Your task to perform on an android device: set default search engine in the chrome app Image 0: 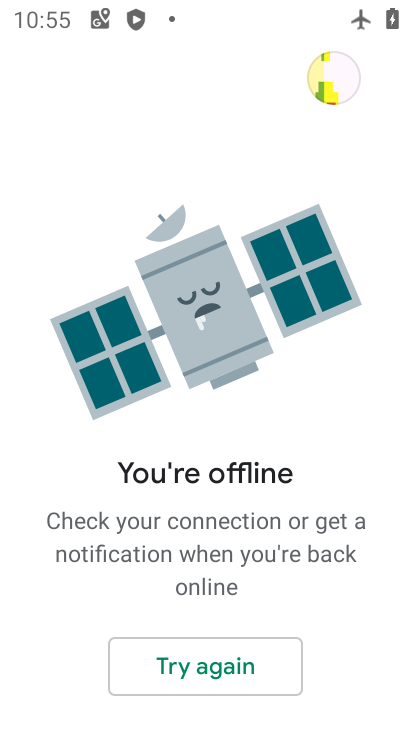
Step 0: press home button
Your task to perform on an android device: set default search engine in the chrome app Image 1: 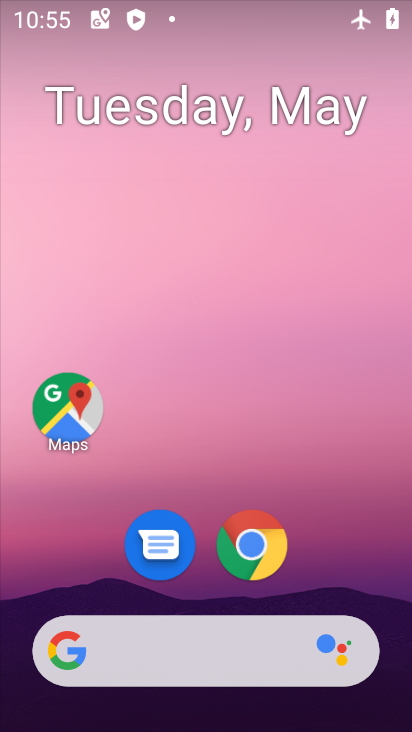
Step 1: drag from (258, 626) to (365, 121)
Your task to perform on an android device: set default search engine in the chrome app Image 2: 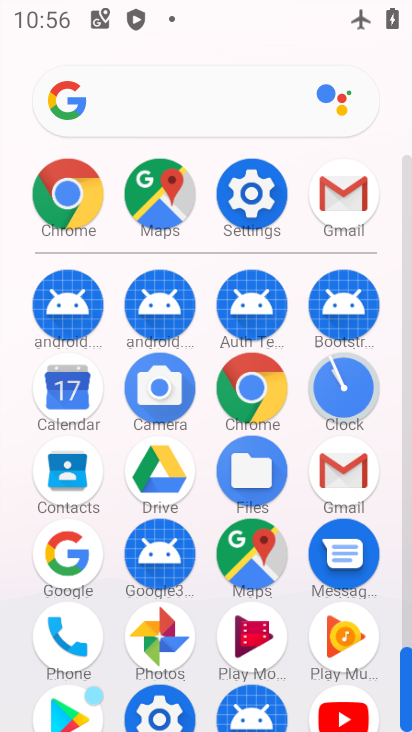
Step 2: click (256, 398)
Your task to perform on an android device: set default search engine in the chrome app Image 3: 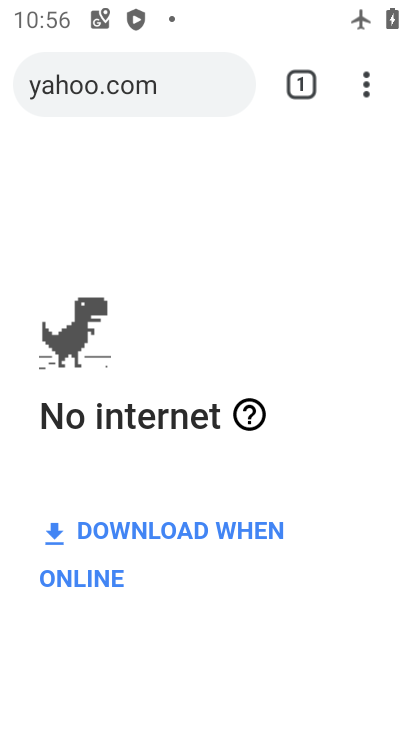
Step 3: click (365, 90)
Your task to perform on an android device: set default search engine in the chrome app Image 4: 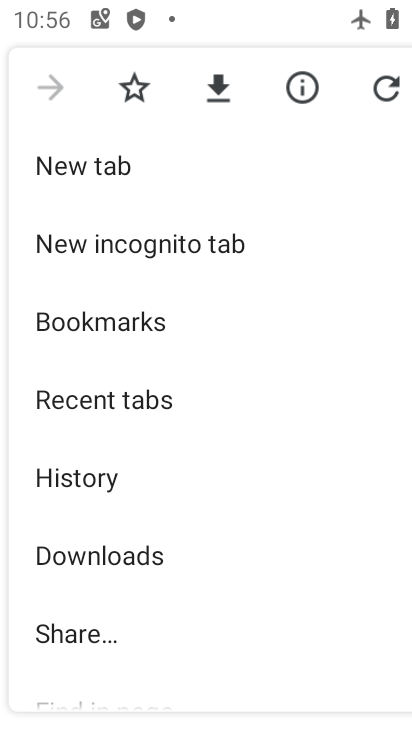
Step 4: drag from (140, 493) to (149, 254)
Your task to perform on an android device: set default search engine in the chrome app Image 5: 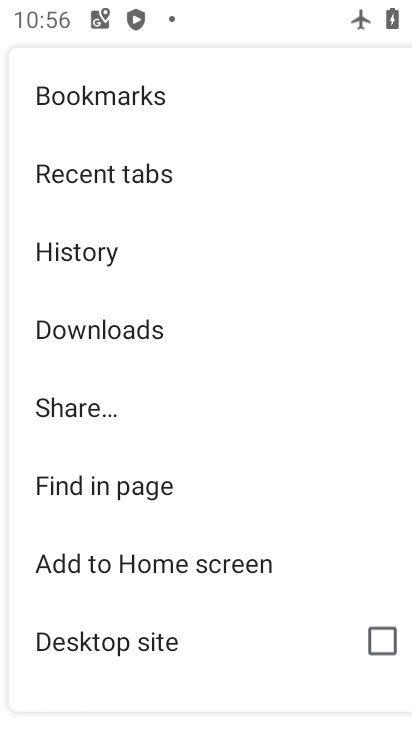
Step 5: drag from (110, 528) to (116, 246)
Your task to perform on an android device: set default search engine in the chrome app Image 6: 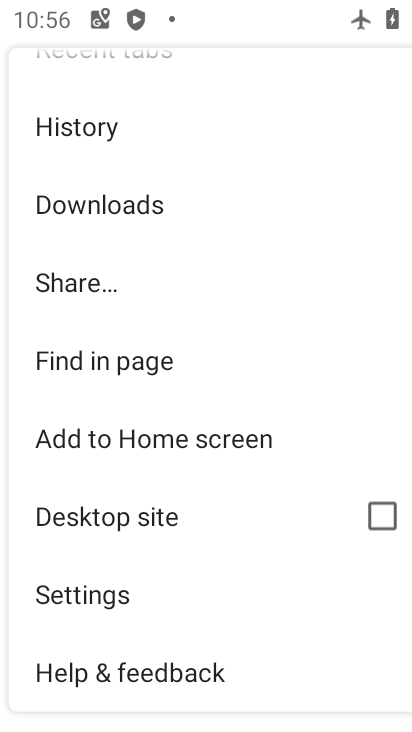
Step 6: click (145, 593)
Your task to perform on an android device: set default search engine in the chrome app Image 7: 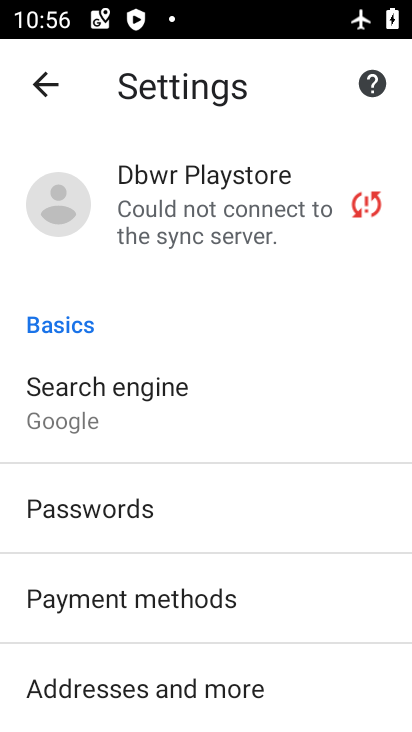
Step 7: drag from (147, 562) to (142, 378)
Your task to perform on an android device: set default search engine in the chrome app Image 8: 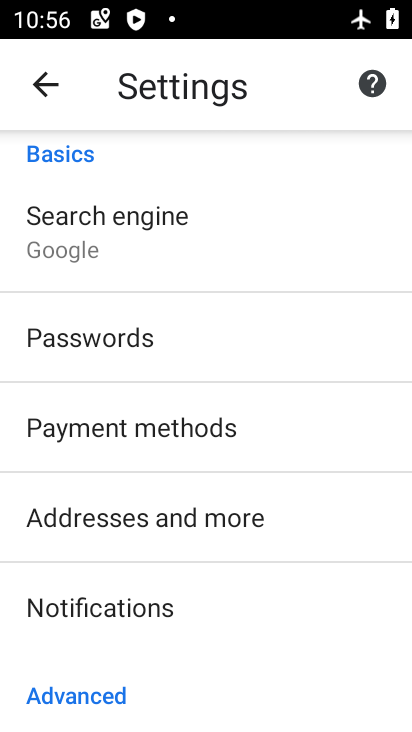
Step 8: drag from (178, 569) to (198, 259)
Your task to perform on an android device: set default search engine in the chrome app Image 9: 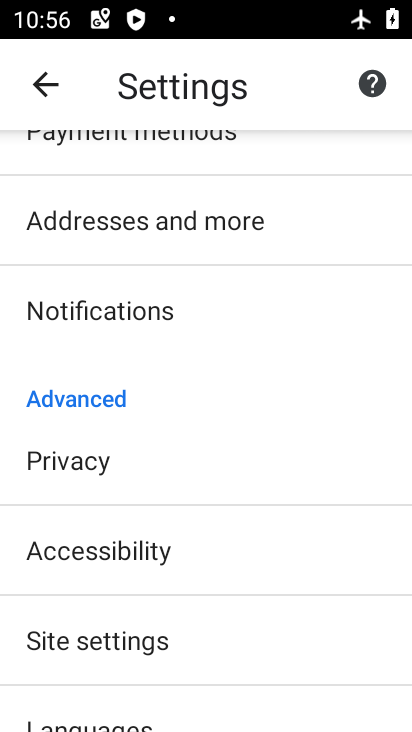
Step 9: drag from (160, 478) to (172, 282)
Your task to perform on an android device: set default search engine in the chrome app Image 10: 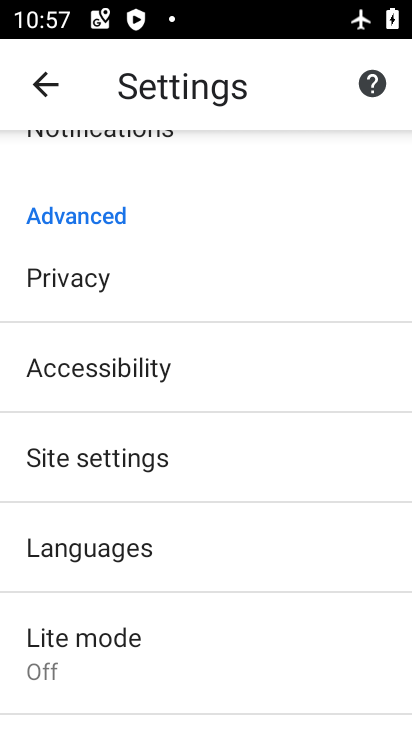
Step 10: drag from (119, 569) to (175, 319)
Your task to perform on an android device: set default search engine in the chrome app Image 11: 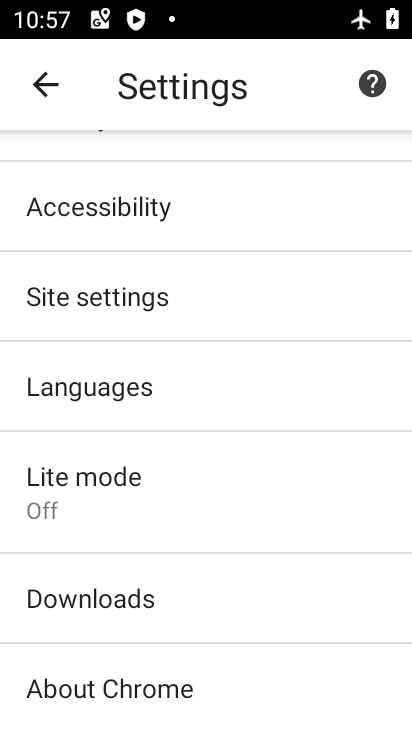
Step 11: drag from (155, 366) to (101, 677)
Your task to perform on an android device: set default search engine in the chrome app Image 12: 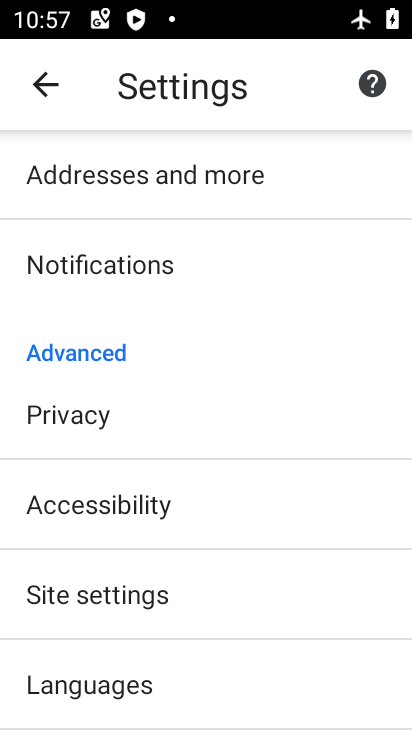
Step 12: drag from (97, 529) to (85, 717)
Your task to perform on an android device: set default search engine in the chrome app Image 13: 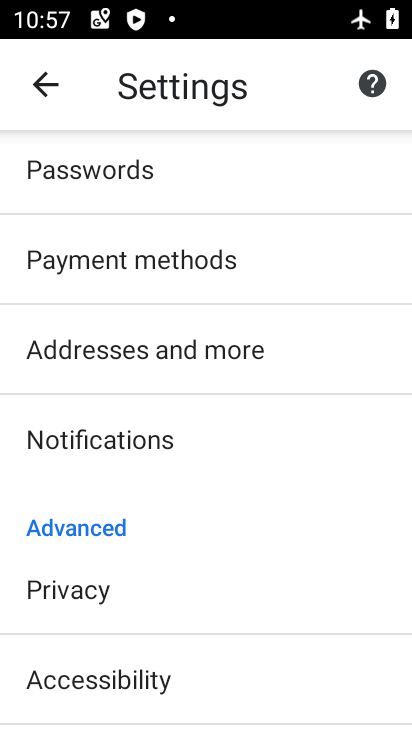
Step 13: drag from (92, 273) to (113, 713)
Your task to perform on an android device: set default search engine in the chrome app Image 14: 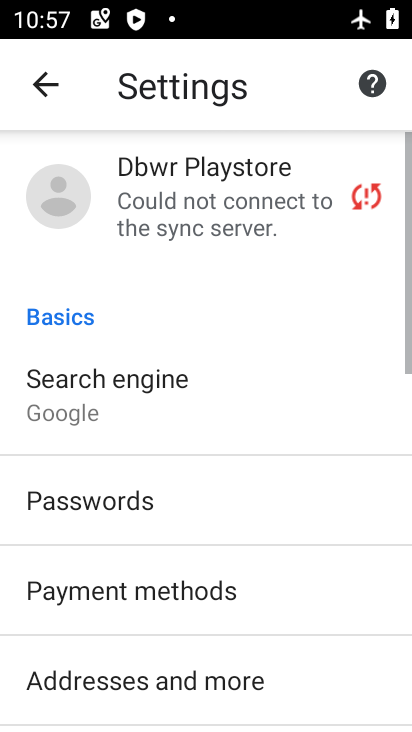
Step 14: click (79, 412)
Your task to perform on an android device: set default search engine in the chrome app Image 15: 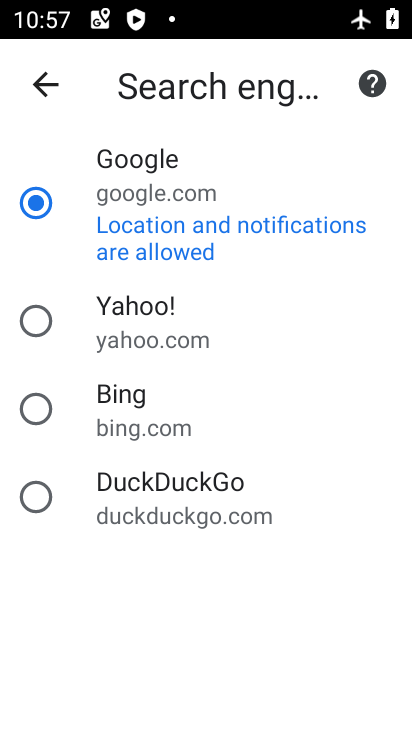
Step 15: task complete